Your task to perform on an android device: Open ESPN.com Image 0: 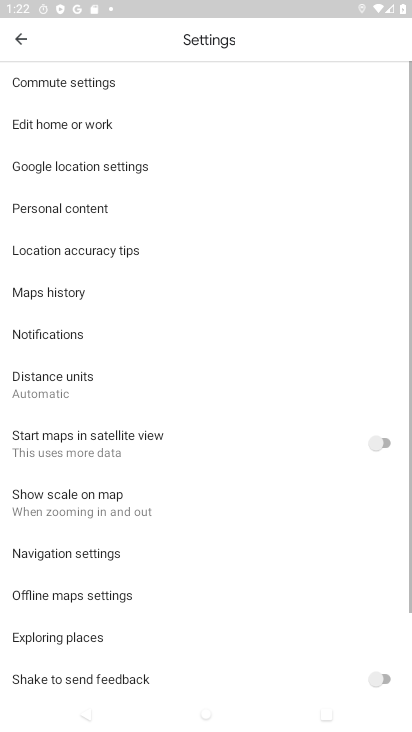
Step 0: press home button
Your task to perform on an android device: Open ESPN.com Image 1: 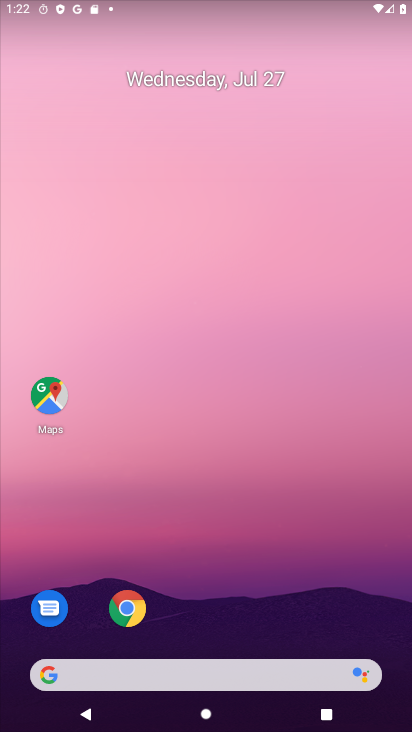
Step 1: click (123, 616)
Your task to perform on an android device: Open ESPN.com Image 2: 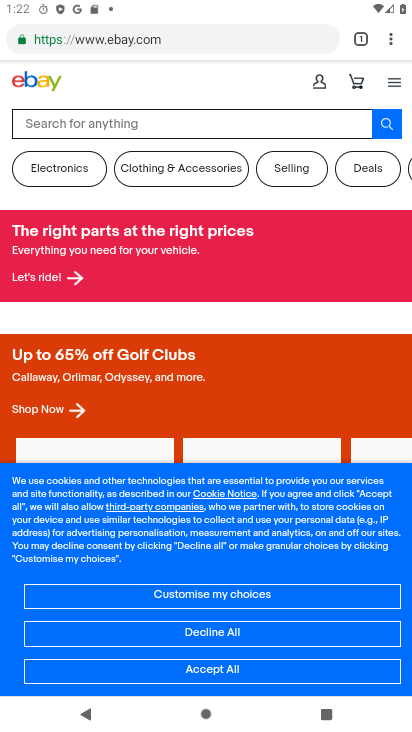
Step 2: click (119, 34)
Your task to perform on an android device: Open ESPN.com Image 3: 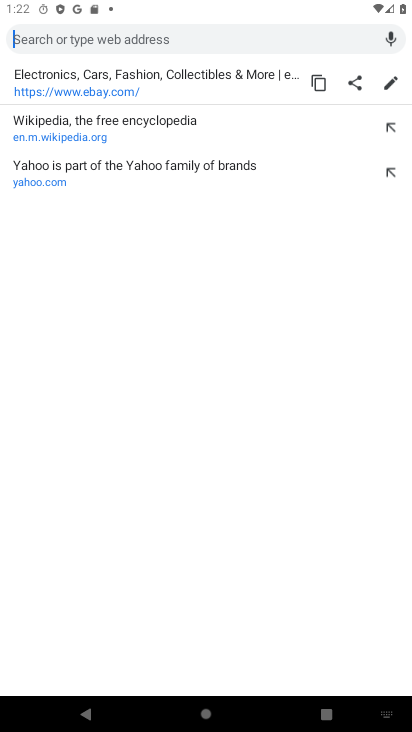
Step 3: type "www.espn.com"
Your task to perform on an android device: Open ESPN.com Image 4: 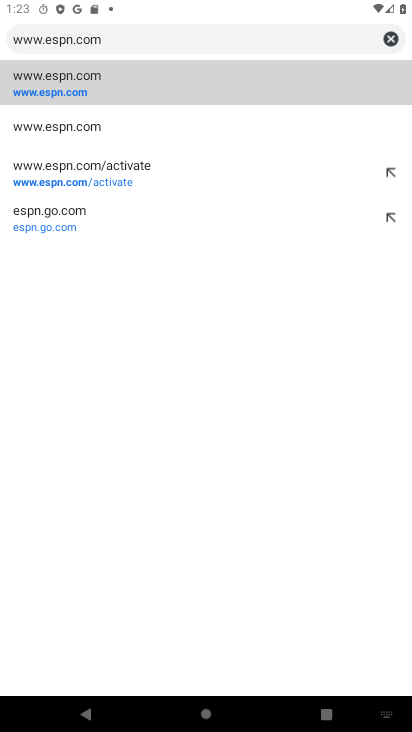
Step 4: click (75, 78)
Your task to perform on an android device: Open ESPN.com Image 5: 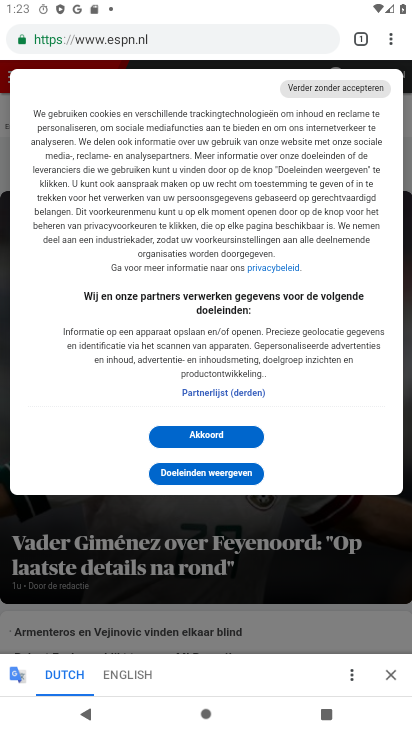
Step 5: task complete